Your task to perform on an android device: Find coffee shops on Maps Image 0: 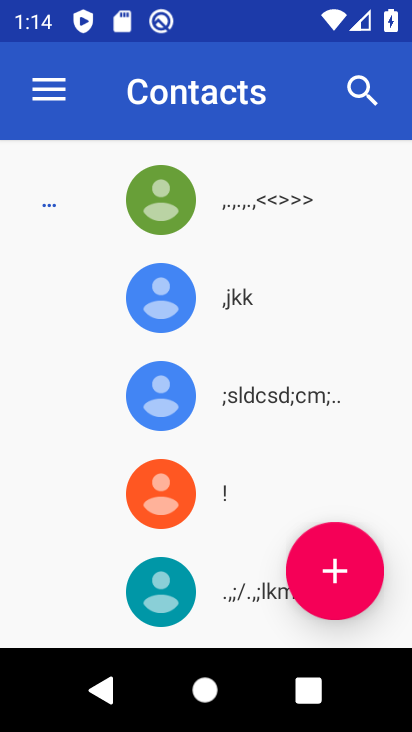
Step 0: press home button
Your task to perform on an android device: Find coffee shops on Maps Image 1: 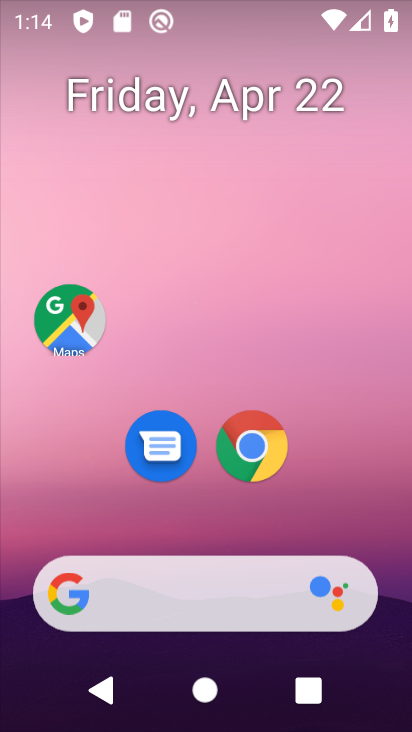
Step 1: click (73, 341)
Your task to perform on an android device: Find coffee shops on Maps Image 2: 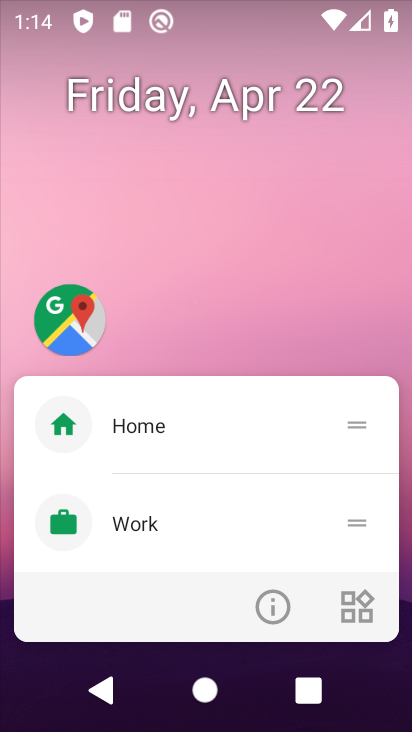
Step 2: click (73, 341)
Your task to perform on an android device: Find coffee shops on Maps Image 3: 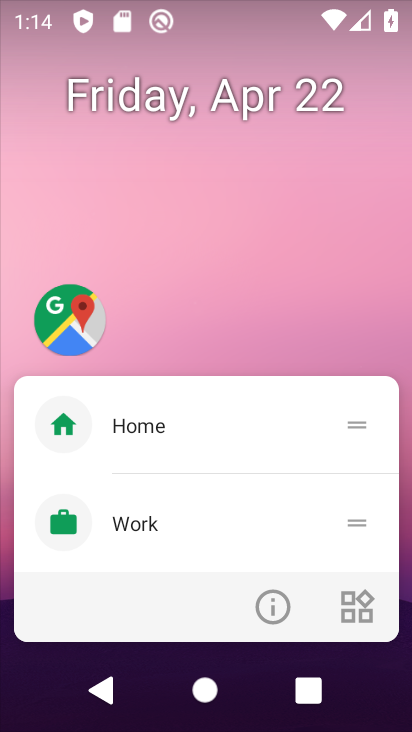
Step 3: click (69, 324)
Your task to perform on an android device: Find coffee shops on Maps Image 4: 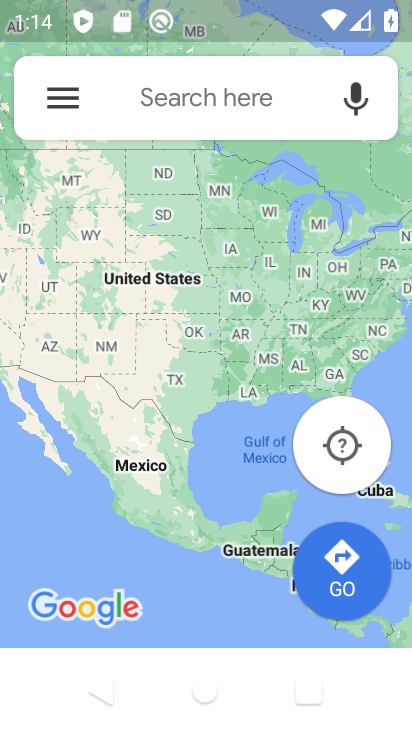
Step 4: click (191, 98)
Your task to perform on an android device: Find coffee shops on Maps Image 5: 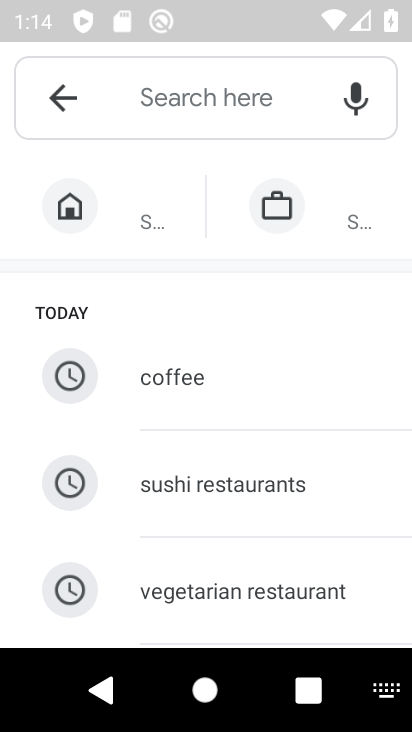
Step 5: click (175, 341)
Your task to perform on an android device: Find coffee shops on Maps Image 6: 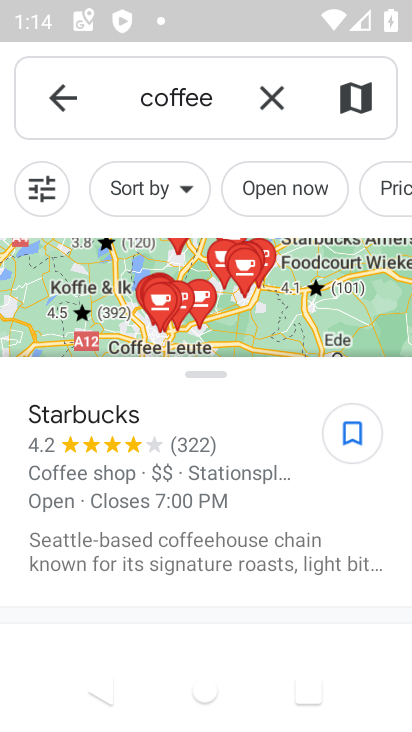
Step 6: task complete